Your task to perform on an android device: Search for Italian restaurants on Maps Image 0: 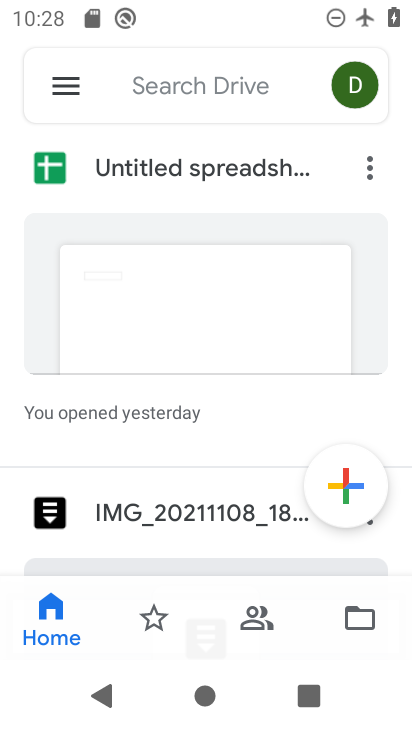
Step 0: press home button
Your task to perform on an android device: Search for Italian restaurants on Maps Image 1: 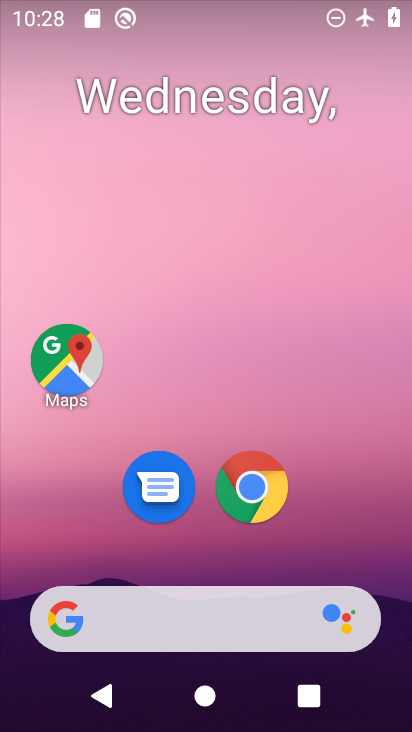
Step 1: click (58, 367)
Your task to perform on an android device: Search for Italian restaurants on Maps Image 2: 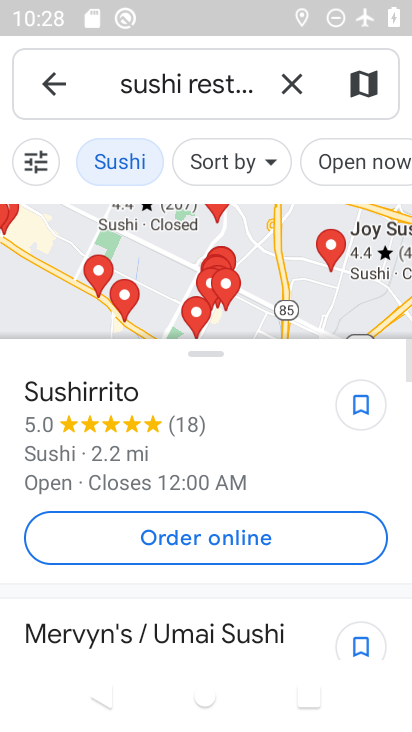
Step 2: click (296, 77)
Your task to perform on an android device: Search for Italian restaurants on Maps Image 3: 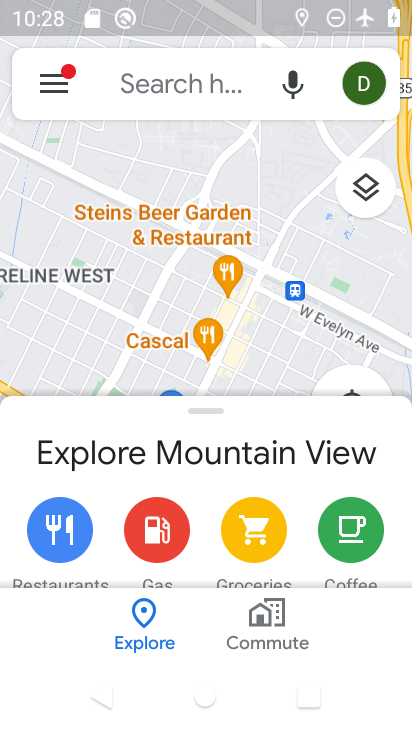
Step 3: click (168, 82)
Your task to perform on an android device: Search for Italian restaurants on Maps Image 4: 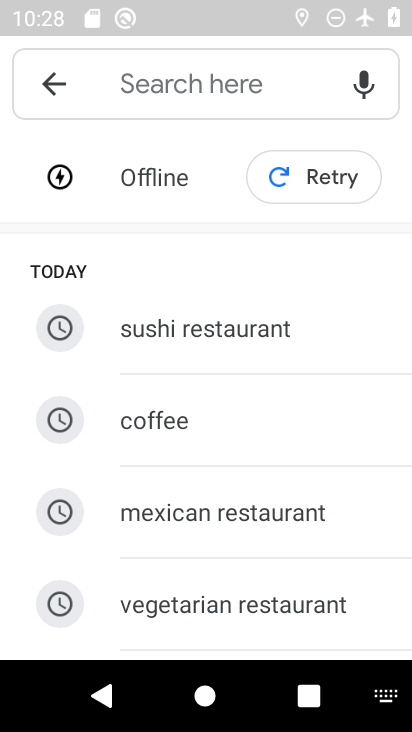
Step 4: type "italian restaurants"
Your task to perform on an android device: Search for Italian restaurants on Maps Image 5: 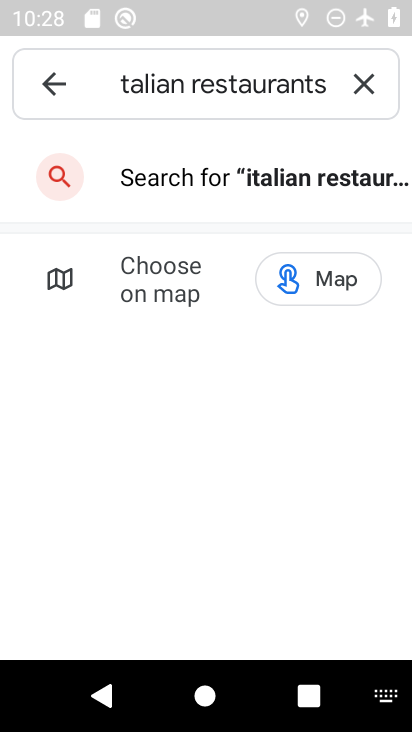
Step 5: click (286, 162)
Your task to perform on an android device: Search for Italian restaurants on Maps Image 6: 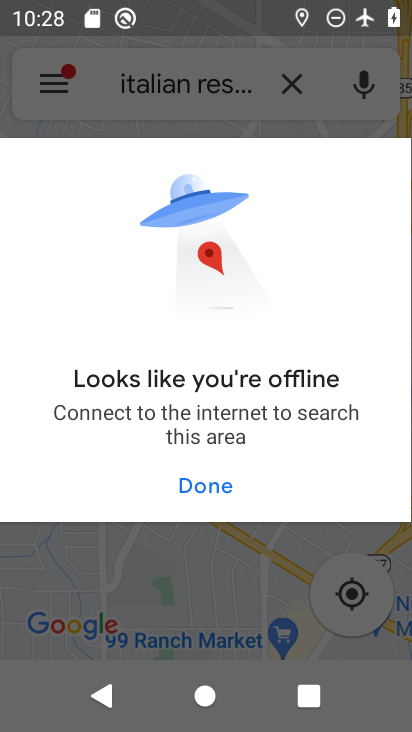
Step 6: click (212, 480)
Your task to perform on an android device: Search for Italian restaurants on Maps Image 7: 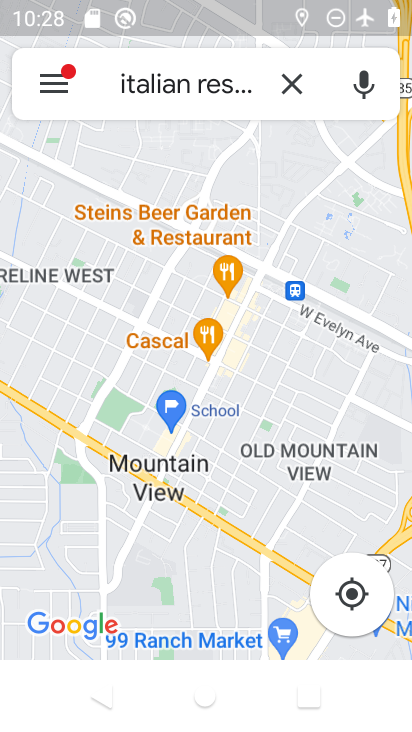
Step 7: task complete